Your task to perform on an android device: What's the weather? Image 0: 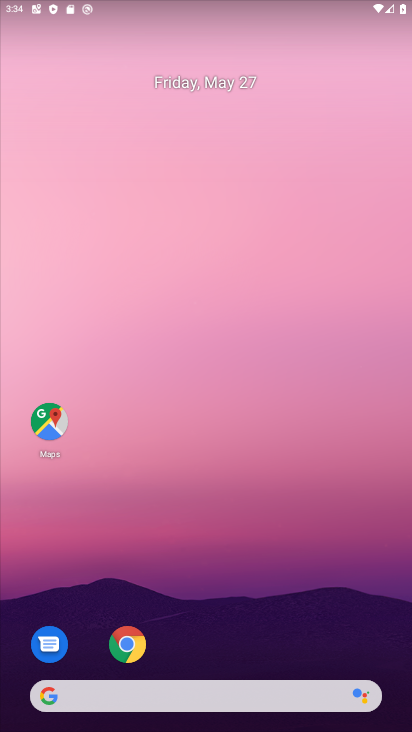
Step 0: drag from (247, 506) to (124, 5)
Your task to perform on an android device: What's the weather? Image 1: 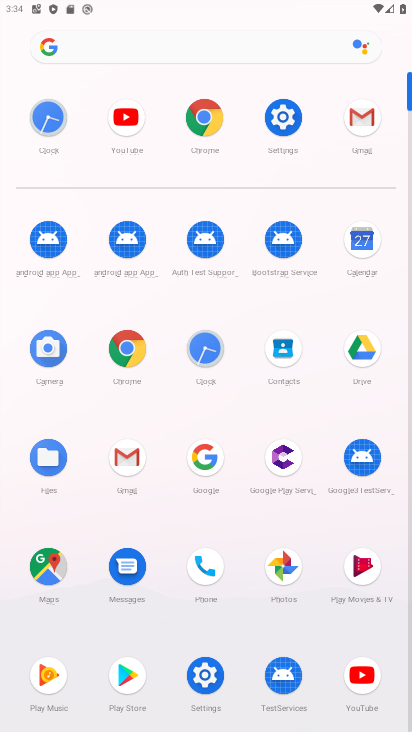
Step 1: click (197, 460)
Your task to perform on an android device: What's the weather? Image 2: 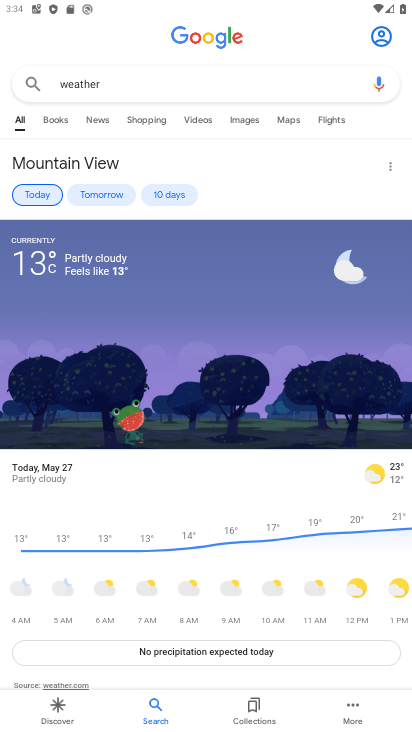
Step 2: task complete